Your task to perform on an android device: toggle improve location accuracy Image 0: 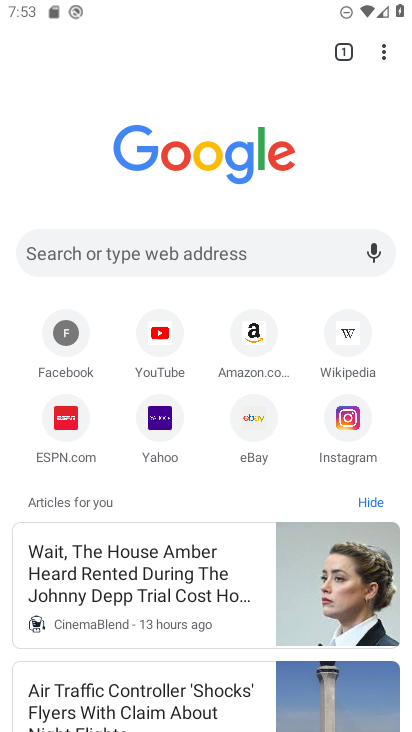
Step 0: drag from (213, 616) to (228, 232)
Your task to perform on an android device: toggle improve location accuracy Image 1: 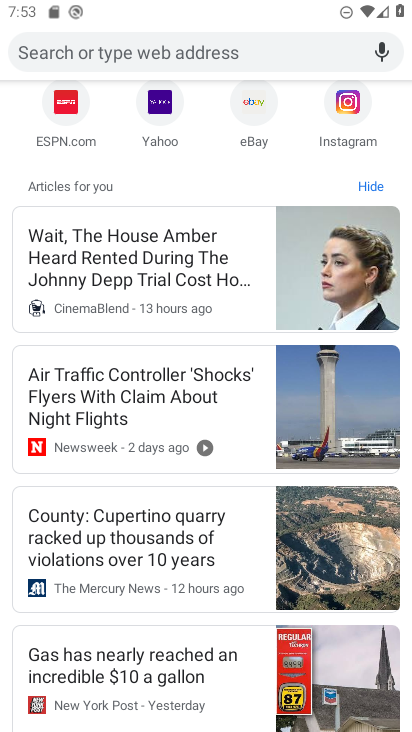
Step 1: press home button
Your task to perform on an android device: toggle improve location accuracy Image 2: 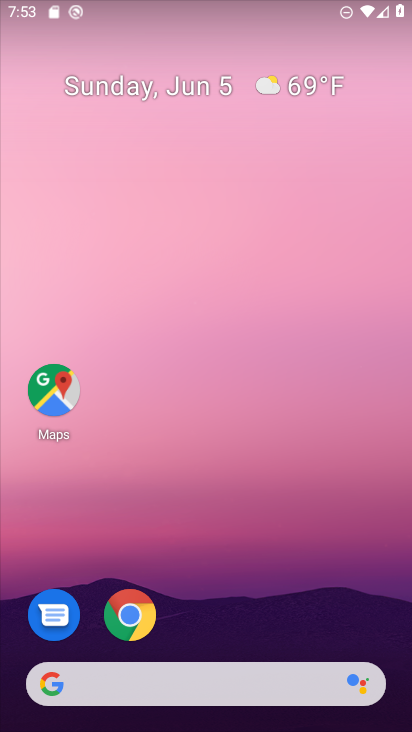
Step 2: drag from (210, 611) to (240, 232)
Your task to perform on an android device: toggle improve location accuracy Image 3: 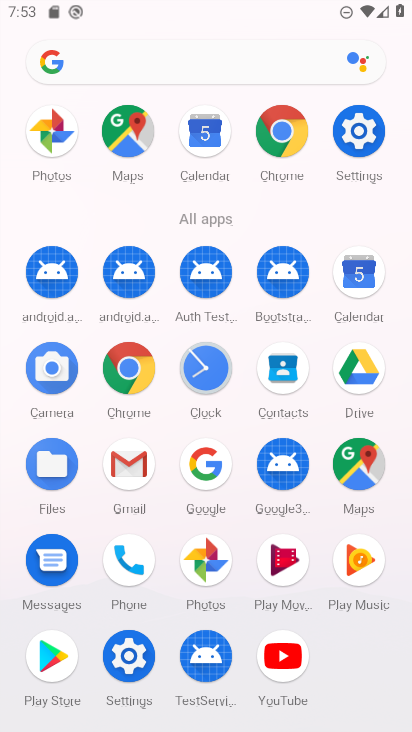
Step 3: click (128, 670)
Your task to perform on an android device: toggle improve location accuracy Image 4: 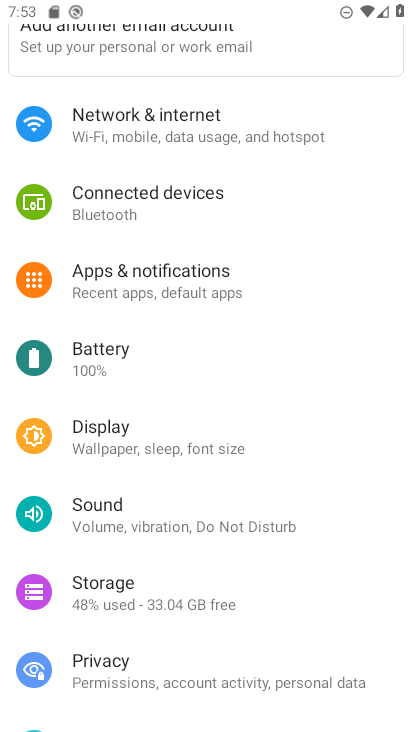
Step 4: drag from (86, 666) to (169, 344)
Your task to perform on an android device: toggle improve location accuracy Image 5: 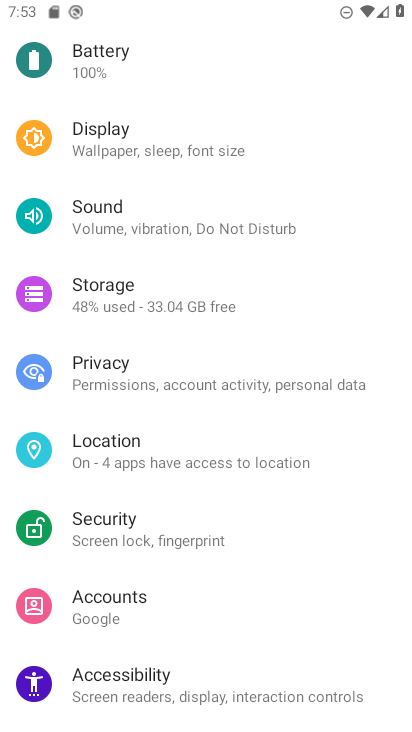
Step 5: click (122, 468)
Your task to perform on an android device: toggle improve location accuracy Image 6: 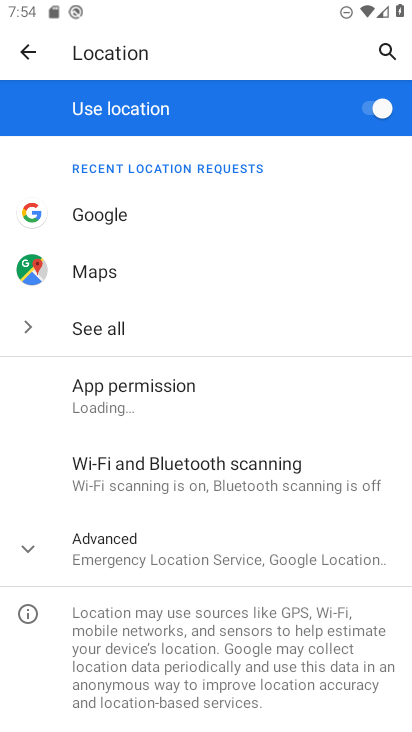
Step 6: click (136, 550)
Your task to perform on an android device: toggle improve location accuracy Image 7: 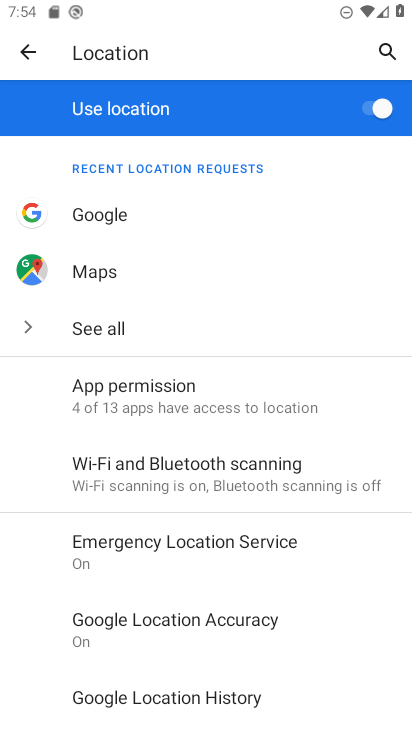
Step 7: click (226, 613)
Your task to perform on an android device: toggle improve location accuracy Image 8: 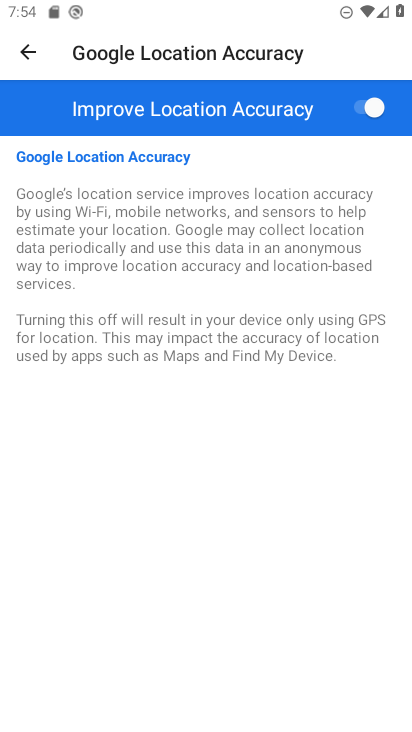
Step 8: click (352, 112)
Your task to perform on an android device: toggle improve location accuracy Image 9: 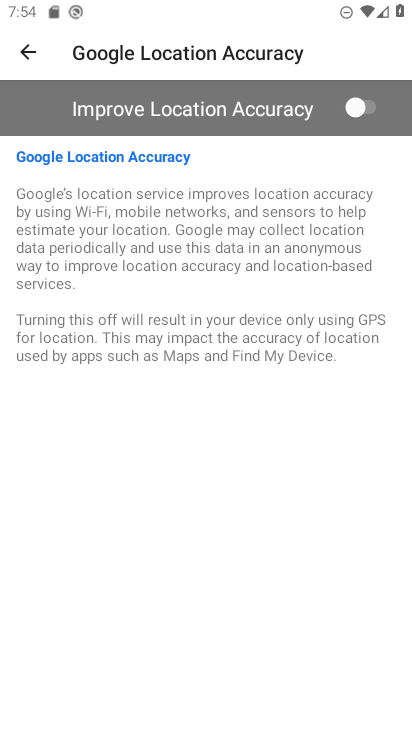
Step 9: task complete